Your task to perform on an android device: What's the weather? Image 0: 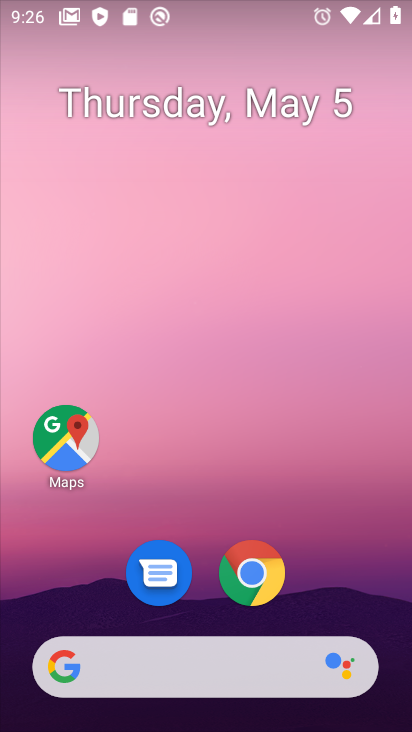
Step 0: drag from (184, 608) to (281, 84)
Your task to perform on an android device: What's the weather? Image 1: 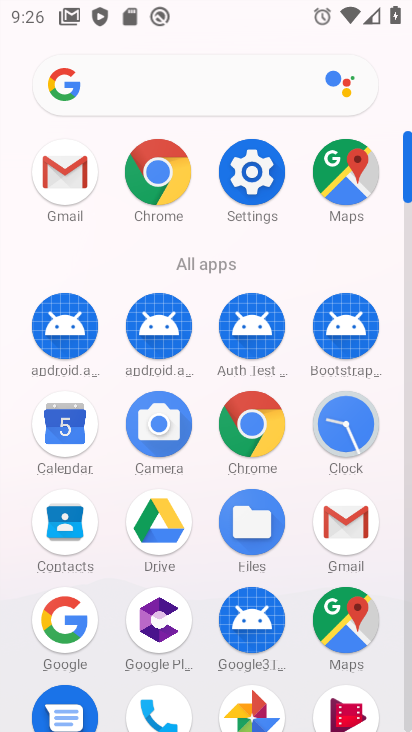
Step 1: press home button
Your task to perform on an android device: What's the weather? Image 2: 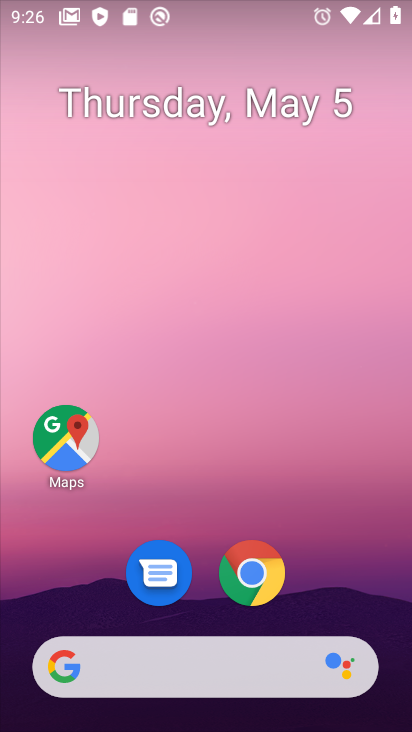
Step 2: click (164, 661)
Your task to perform on an android device: What's the weather? Image 3: 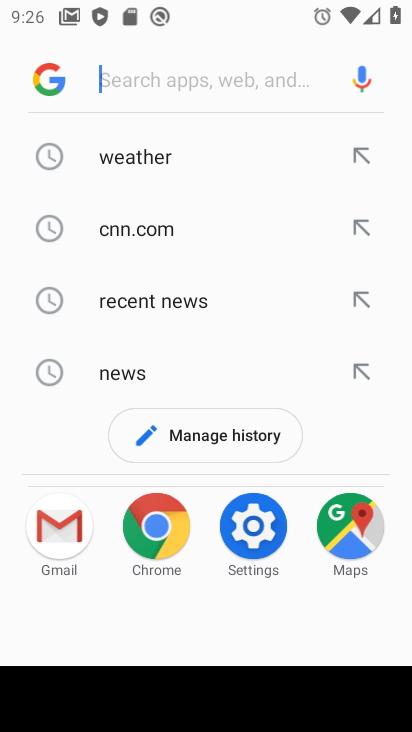
Step 3: click (128, 155)
Your task to perform on an android device: What's the weather? Image 4: 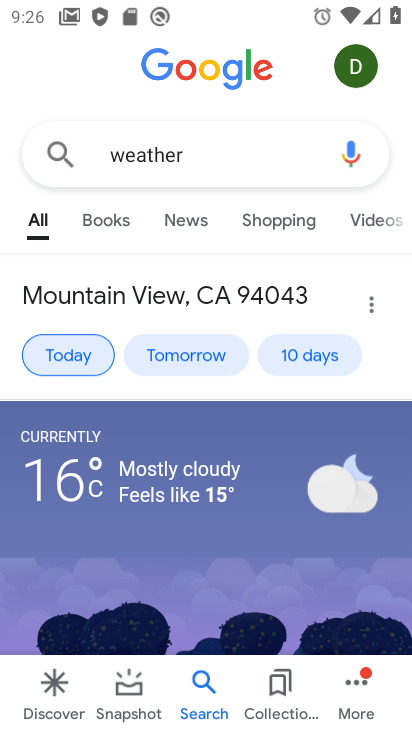
Step 4: task complete